Your task to perform on an android device: change notification settings in the gmail app Image 0: 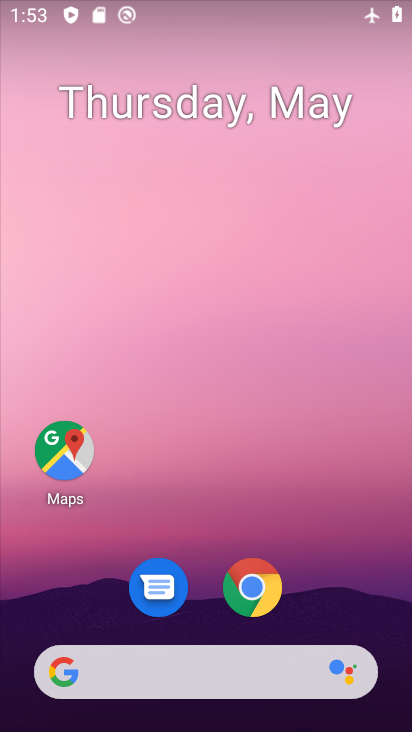
Step 0: drag from (349, 546) to (222, 104)
Your task to perform on an android device: change notification settings in the gmail app Image 1: 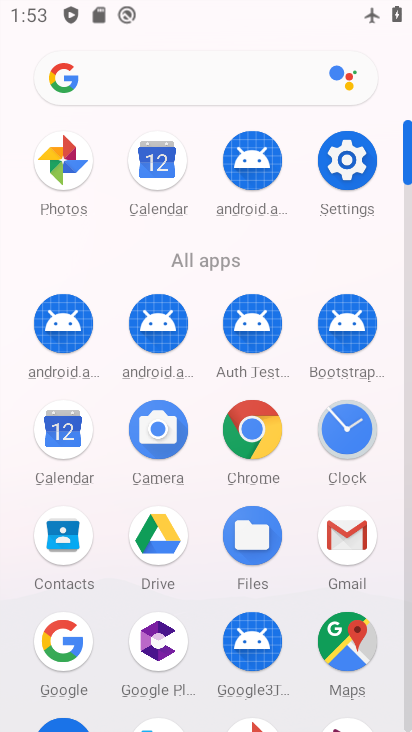
Step 1: click (349, 542)
Your task to perform on an android device: change notification settings in the gmail app Image 2: 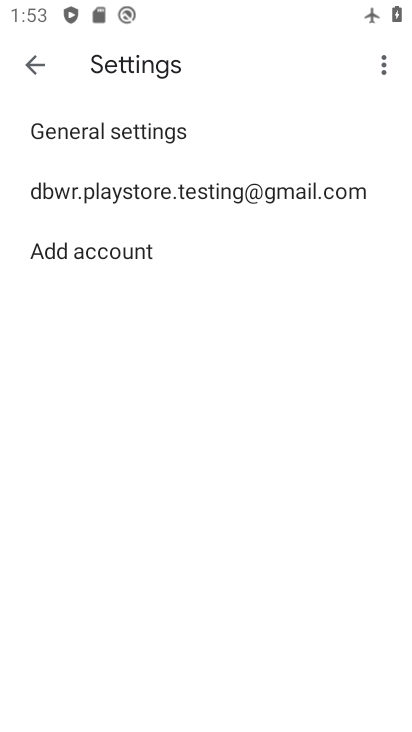
Step 2: click (91, 124)
Your task to perform on an android device: change notification settings in the gmail app Image 3: 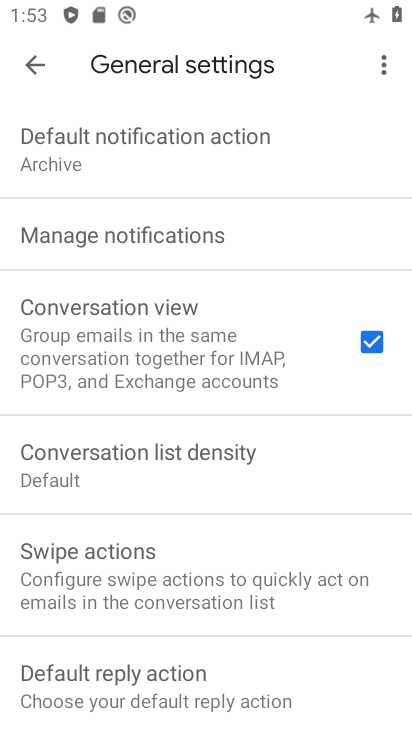
Step 3: click (143, 235)
Your task to perform on an android device: change notification settings in the gmail app Image 4: 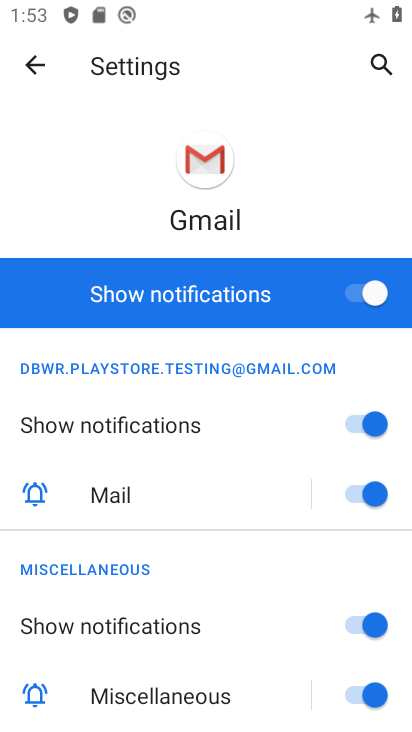
Step 4: click (377, 294)
Your task to perform on an android device: change notification settings in the gmail app Image 5: 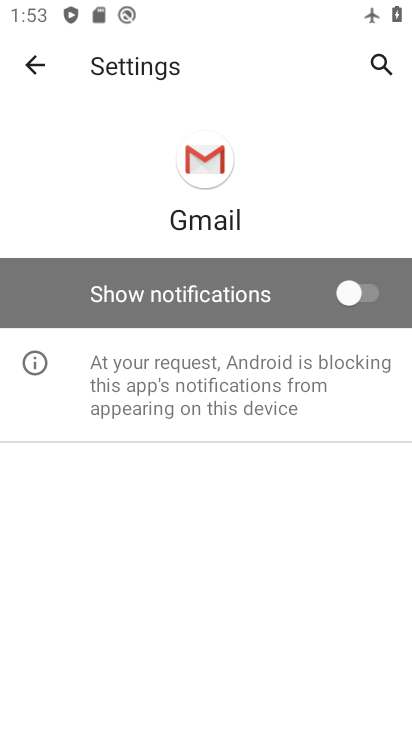
Step 5: task complete